Your task to perform on an android device: set the stopwatch Image 0: 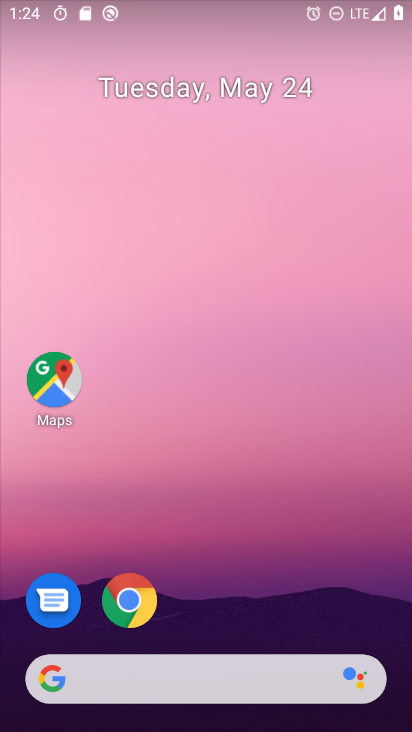
Step 0: drag from (240, 567) to (245, 63)
Your task to perform on an android device: set the stopwatch Image 1: 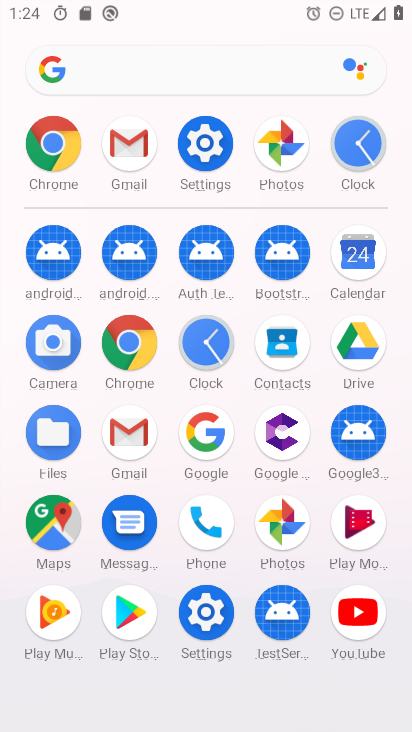
Step 1: click (201, 345)
Your task to perform on an android device: set the stopwatch Image 2: 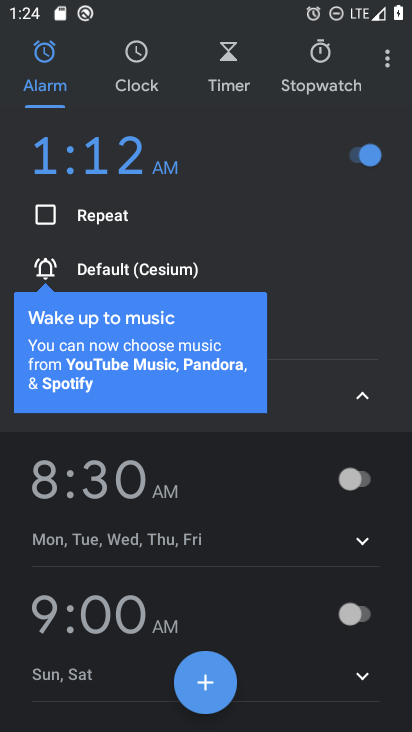
Step 2: click (314, 66)
Your task to perform on an android device: set the stopwatch Image 3: 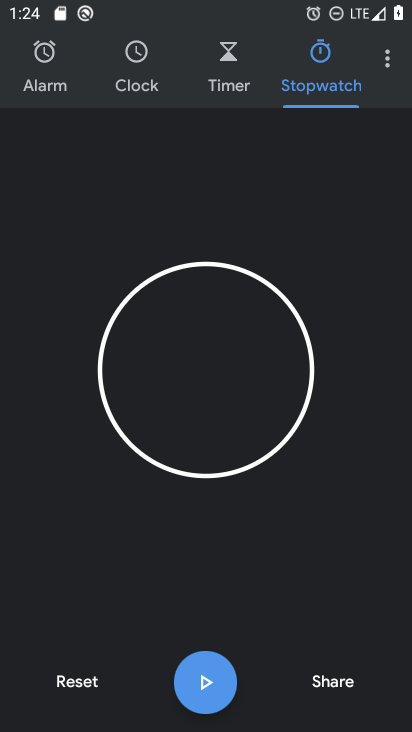
Step 3: task complete